Your task to perform on an android device: turn on wifi Image 0: 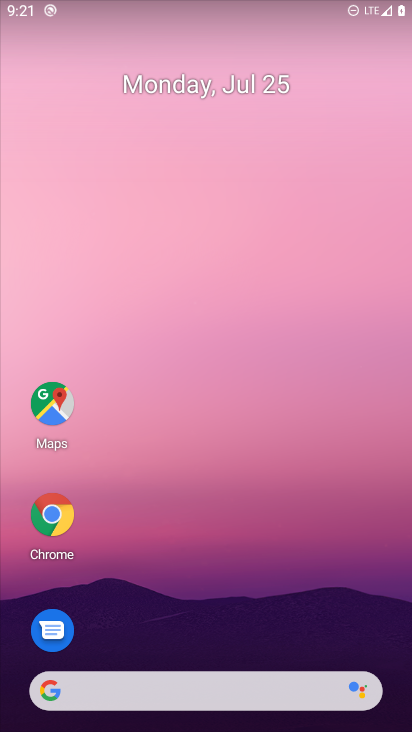
Step 0: drag from (47, 645) to (410, 407)
Your task to perform on an android device: turn on wifi Image 1: 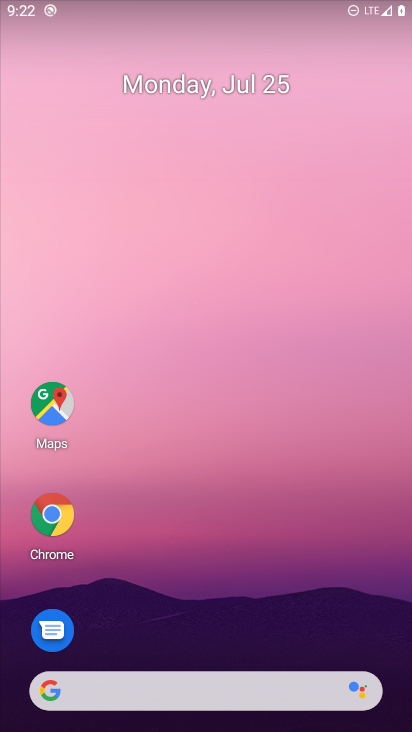
Step 1: task complete